Your task to perform on an android device: turn off airplane mode Image 0: 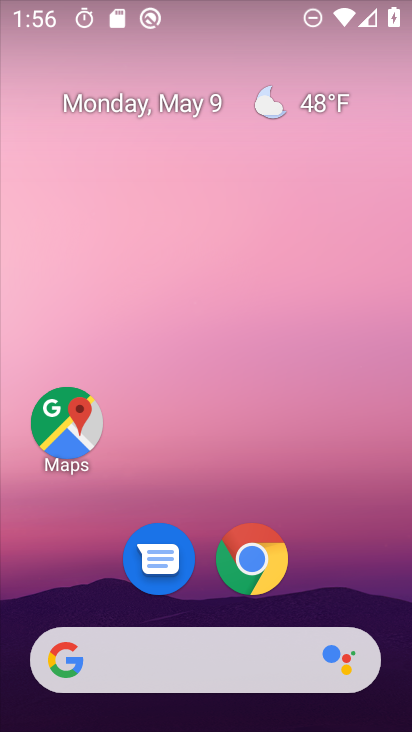
Step 0: drag from (181, 599) to (282, 121)
Your task to perform on an android device: turn off airplane mode Image 1: 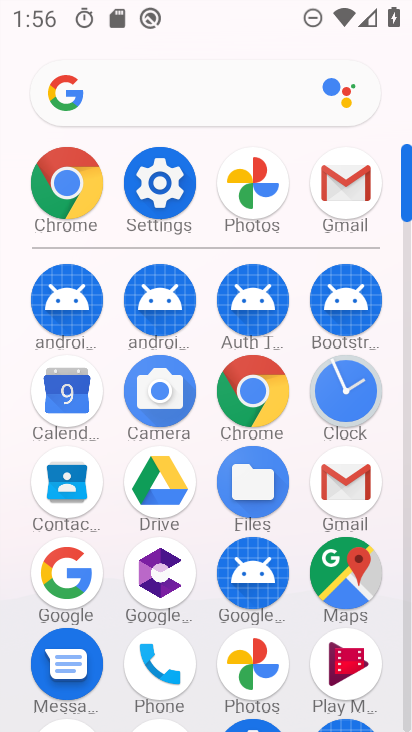
Step 1: click (151, 194)
Your task to perform on an android device: turn off airplane mode Image 2: 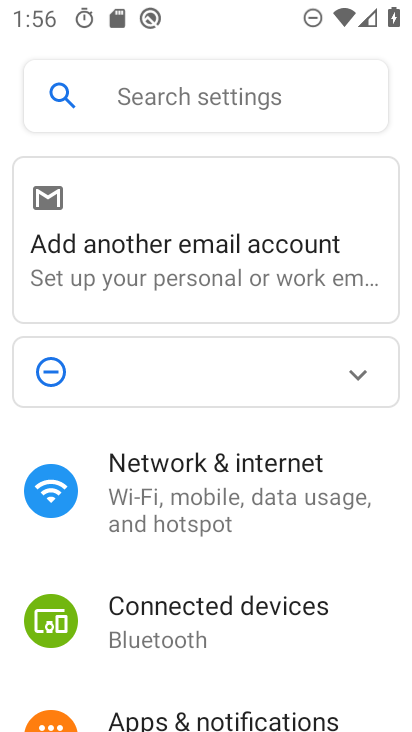
Step 2: drag from (252, 579) to (302, 169)
Your task to perform on an android device: turn off airplane mode Image 3: 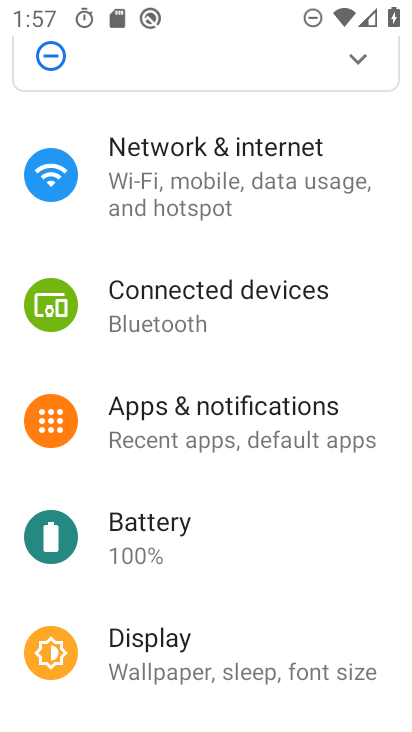
Step 3: drag from (193, 172) to (299, 726)
Your task to perform on an android device: turn off airplane mode Image 4: 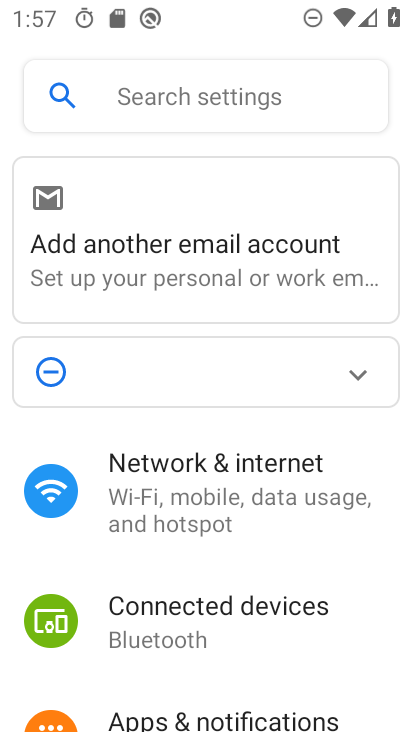
Step 4: click (226, 530)
Your task to perform on an android device: turn off airplane mode Image 5: 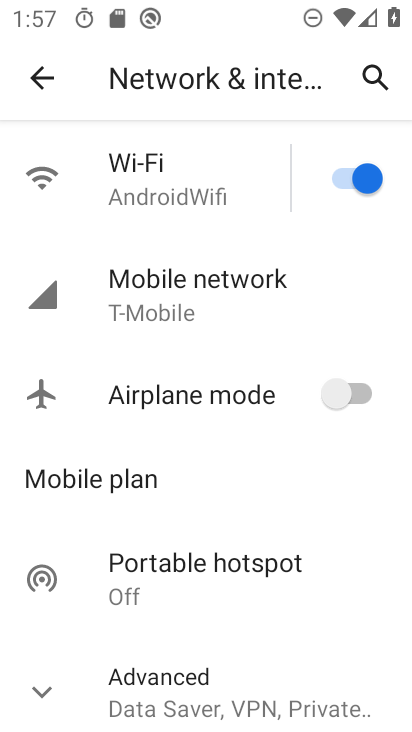
Step 5: task complete